Your task to perform on an android device: Find coffee shops on Maps Image 0: 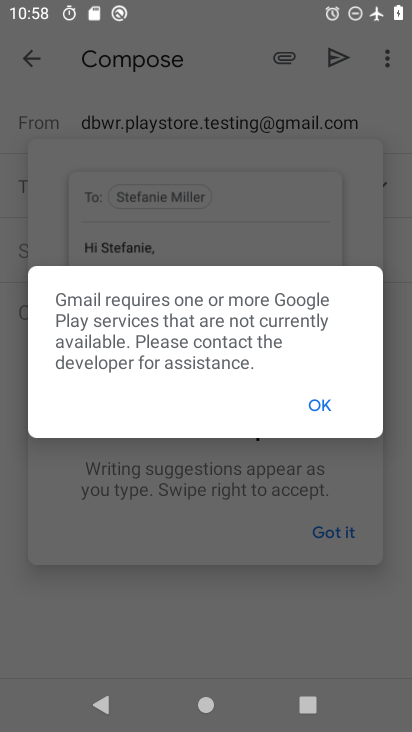
Step 0: press home button
Your task to perform on an android device: Find coffee shops on Maps Image 1: 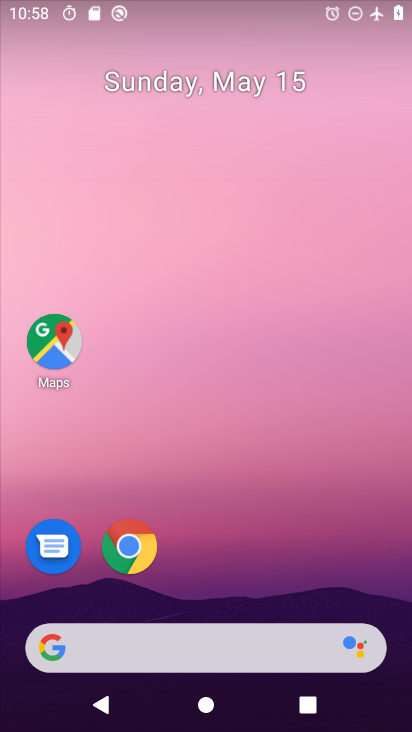
Step 1: click (52, 336)
Your task to perform on an android device: Find coffee shops on Maps Image 2: 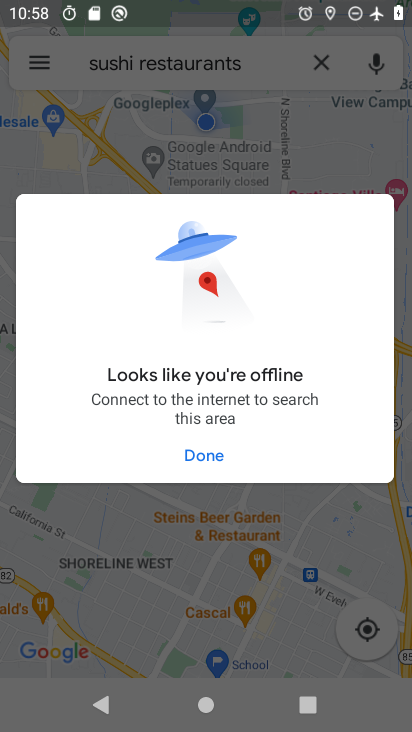
Step 2: click (212, 456)
Your task to perform on an android device: Find coffee shops on Maps Image 3: 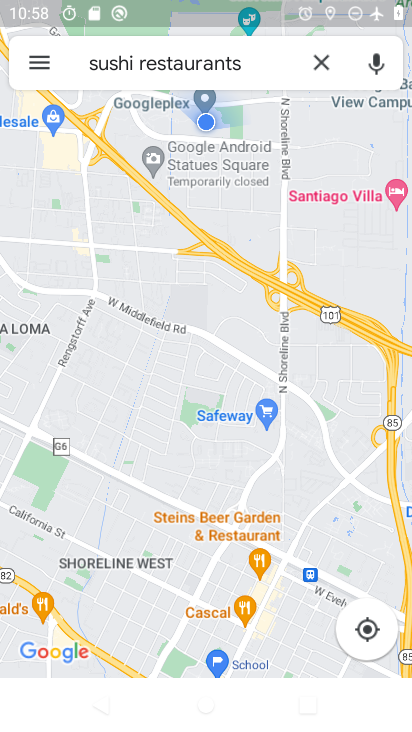
Step 3: click (199, 57)
Your task to perform on an android device: Find coffee shops on Maps Image 4: 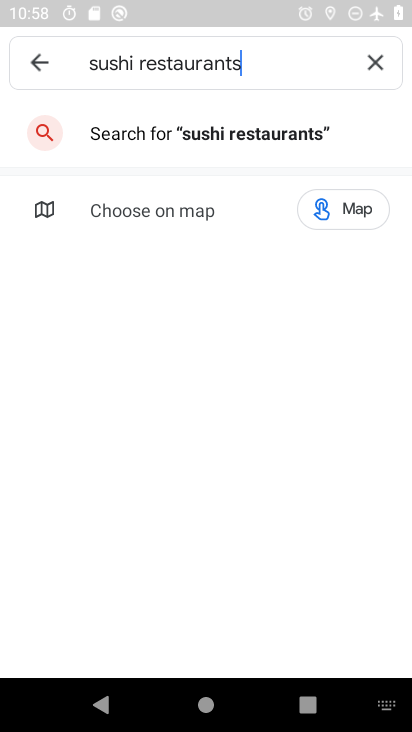
Step 4: click (375, 59)
Your task to perform on an android device: Find coffee shops on Maps Image 5: 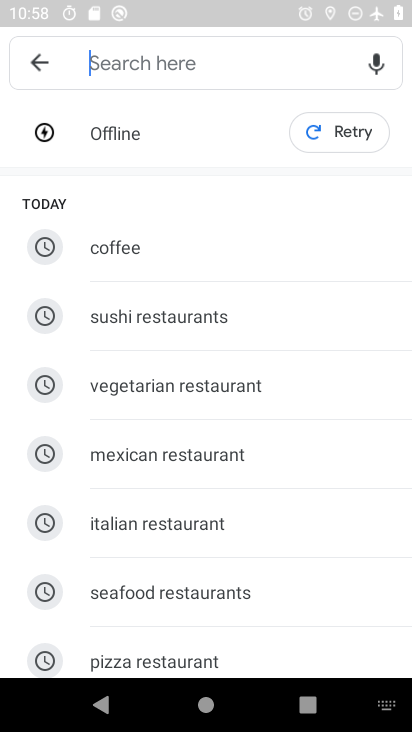
Step 5: type "coffee shops"
Your task to perform on an android device: Find coffee shops on Maps Image 6: 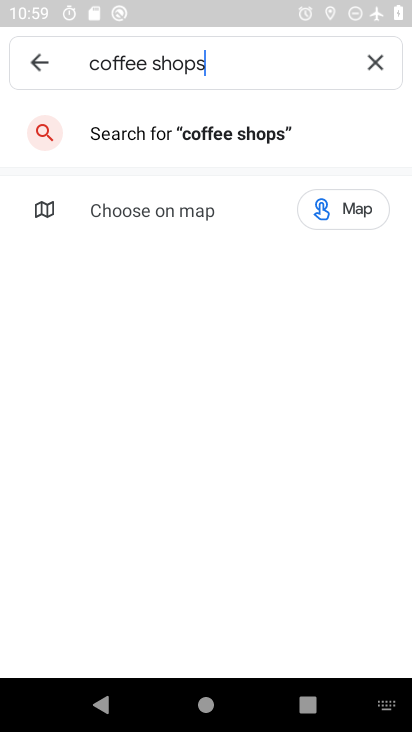
Step 6: click (294, 142)
Your task to perform on an android device: Find coffee shops on Maps Image 7: 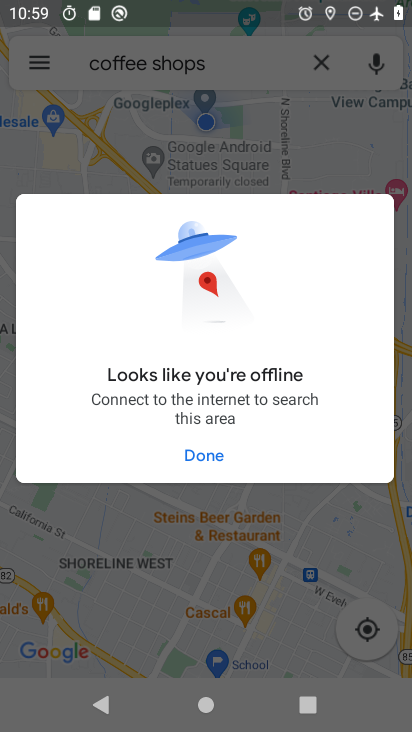
Step 7: task complete